Your task to perform on an android device: Show me the alarms in the clock app Image 0: 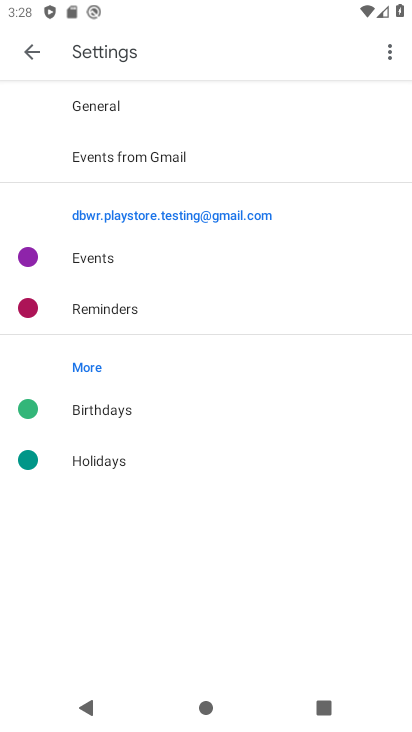
Step 0: press home button
Your task to perform on an android device: Show me the alarms in the clock app Image 1: 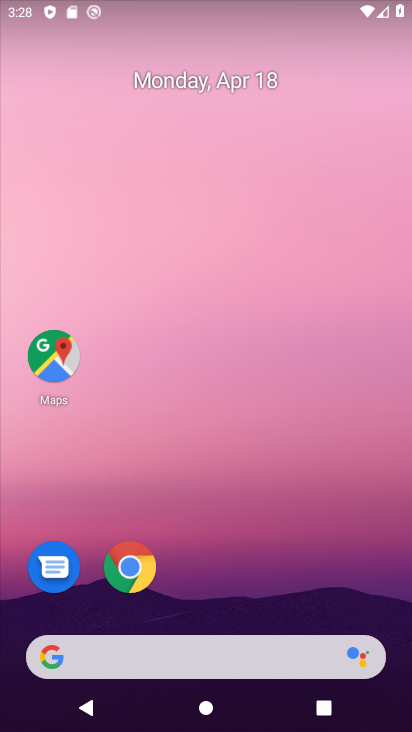
Step 1: drag from (261, 572) to (269, 61)
Your task to perform on an android device: Show me the alarms in the clock app Image 2: 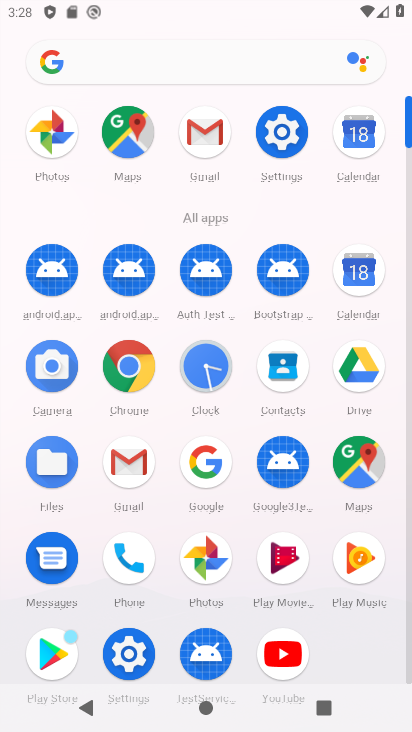
Step 2: click (210, 373)
Your task to perform on an android device: Show me the alarms in the clock app Image 3: 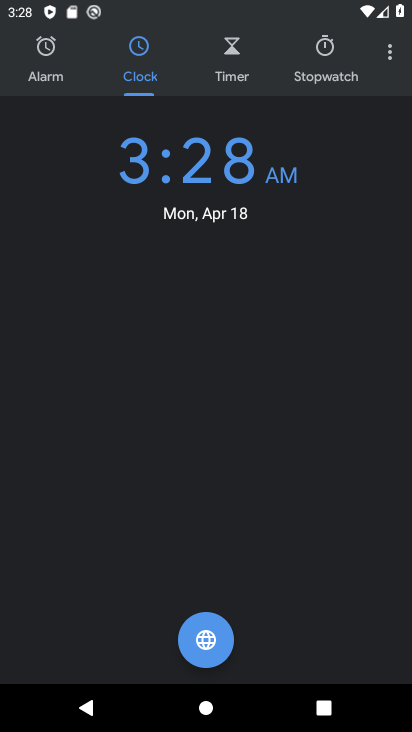
Step 3: click (47, 71)
Your task to perform on an android device: Show me the alarms in the clock app Image 4: 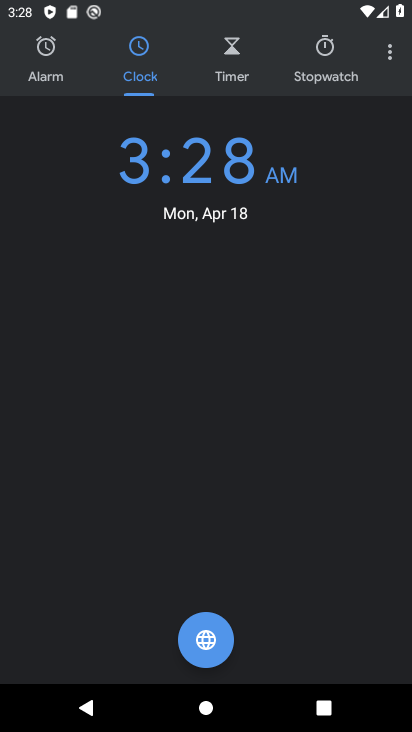
Step 4: click (50, 78)
Your task to perform on an android device: Show me the alarms in the clock app Image 5: 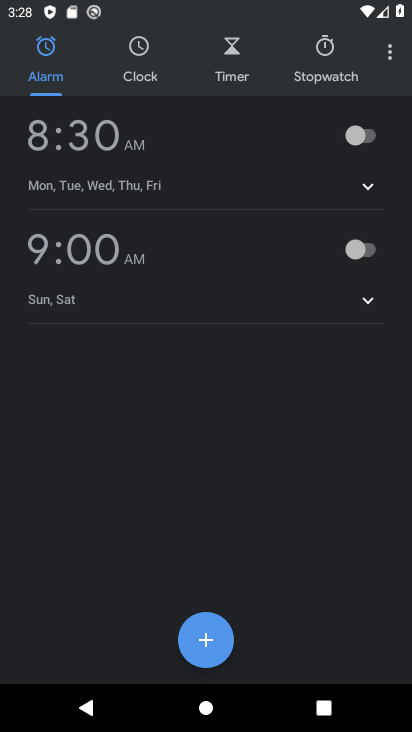
Step 5: task complete